Your task to perform on an android device: turn off priority inbox in the gmail app Image 0: 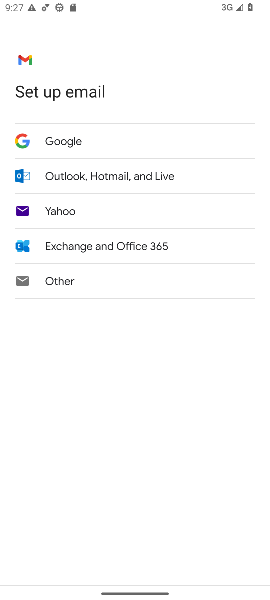
Step 0: press home button
Your task to perform on an android device: turn off priority inbox in the gmail app Image 1: 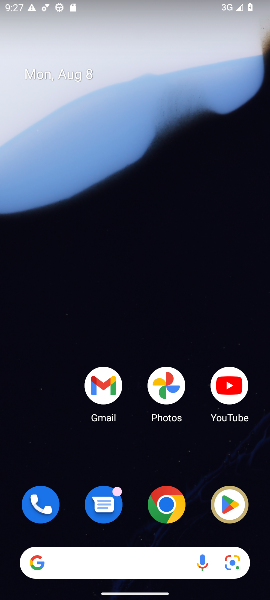
Step 1: click (108, 395)
Your task to perform on an android device: turn off priority inbox in the gmail app Image 2: 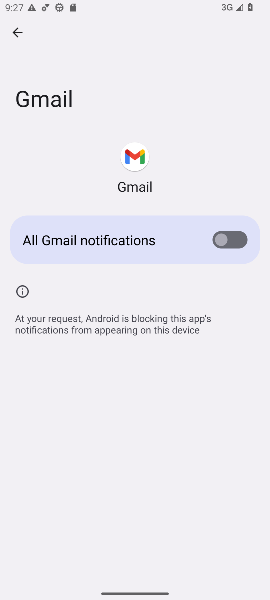
Step 2: press home button
Your task to perform on an android device: turn off priority inbox in the gmail app Image 3: 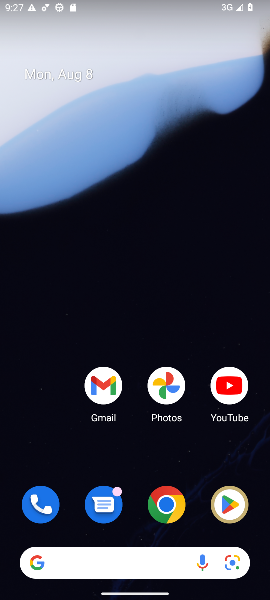
Step 3: click (110, 403)
Your task to perform on an android device: turn off priority inbox in the gmail app Image 4: 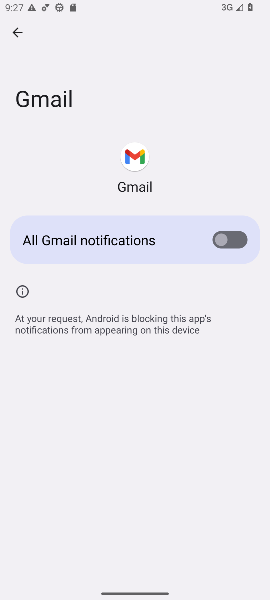
Step 4: click (21, 28)
Your task to perform on an android device: turn off priority inbox in the gmail app Image 5: 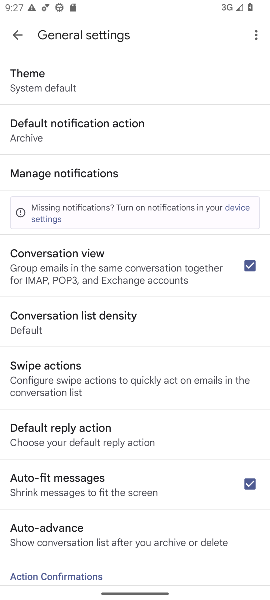
Step 5: click (9, 23)
Your task to perform on an android device: turn off priority inbox in the gmail app Image 6: 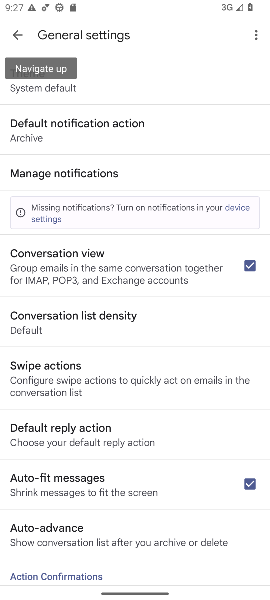
Step 6: click (16, 32)
Your task to perform on an android device: turn off priority inbox in the gmail app Image 7: 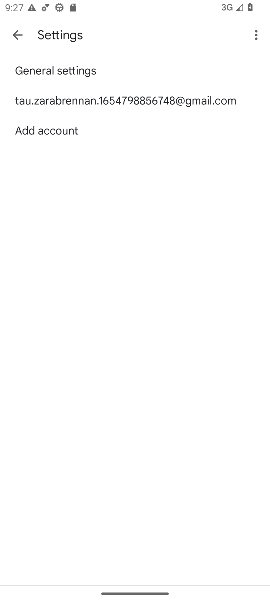
Step 7: click (111, 102)
Your task to perform on an android device: turn off priority inbox in the gmail app Image 8: 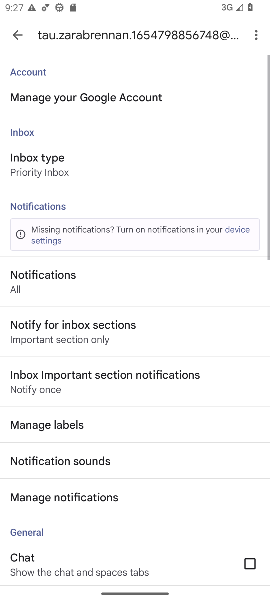
Step 8: click (32, 177)
Your task to perform on an android device: turn off priority inbox in the gmail app Image 9: 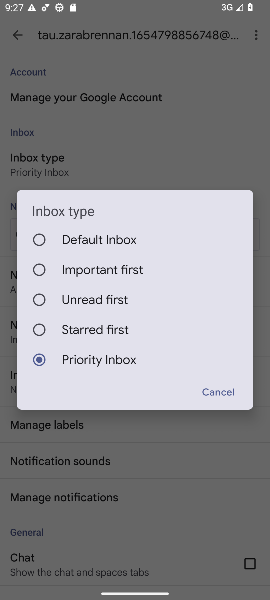
Step 9: click (122, 245)
Your task to perform on an android device: turn off priority inbox in the gmail app Image 10: 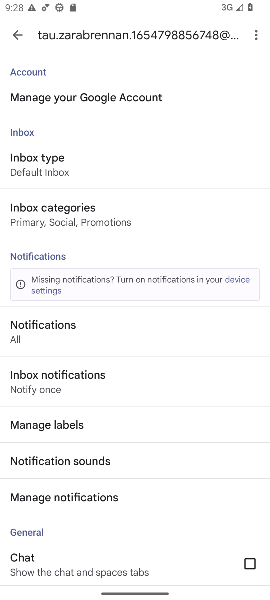
Step 10: click (85, 236)
Your task to perform on an android device: turn off priority inbox in the gmail app Image 11: 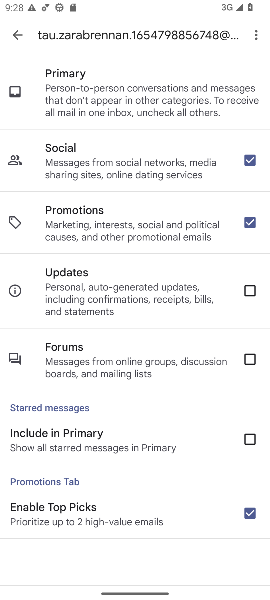
Step 11: task complete